Your task to perform on an android device: uninstall "NewsBreak: Local News & Alerts" Image 0: 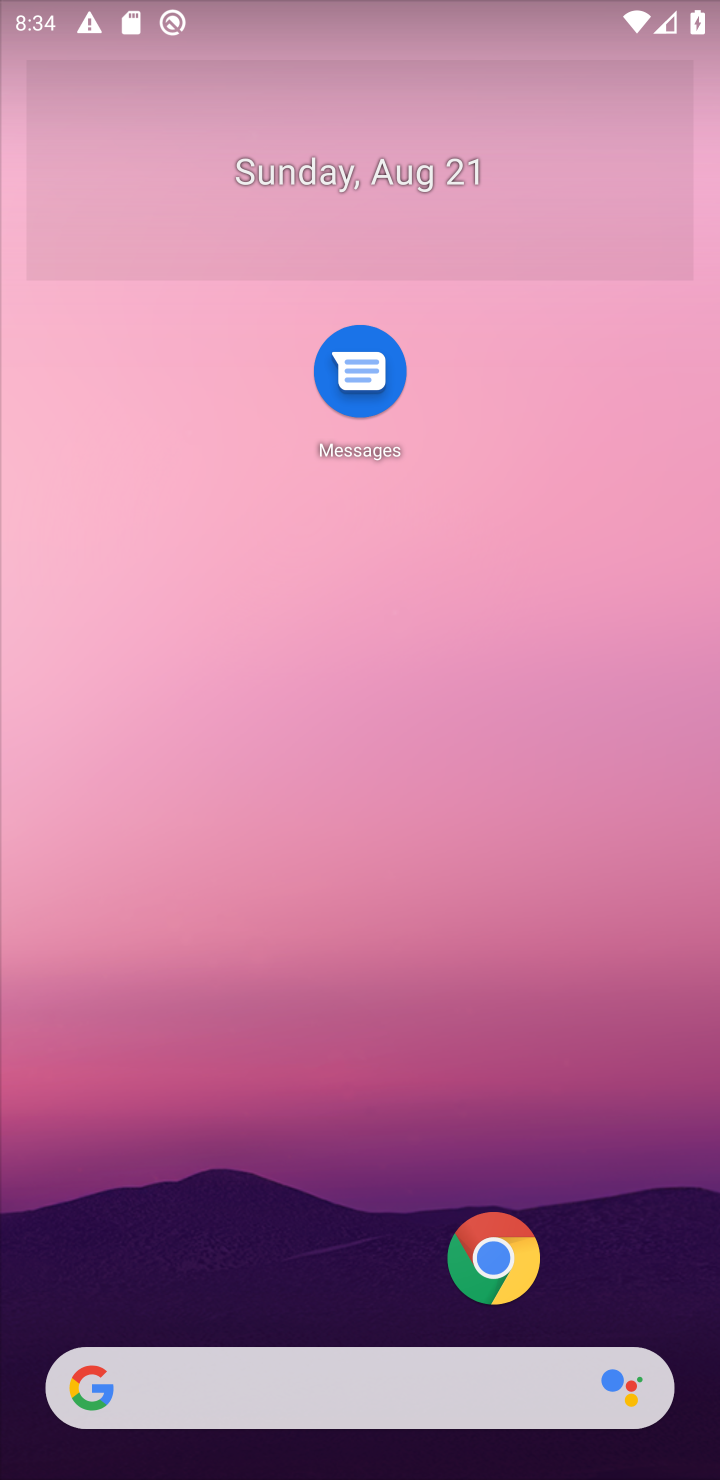
Step 0: drag from (478, 1468) to (578, 259)
Your task to perform on an android device: uninstall "NewsBreak: Local News & Alerts" Image 1: 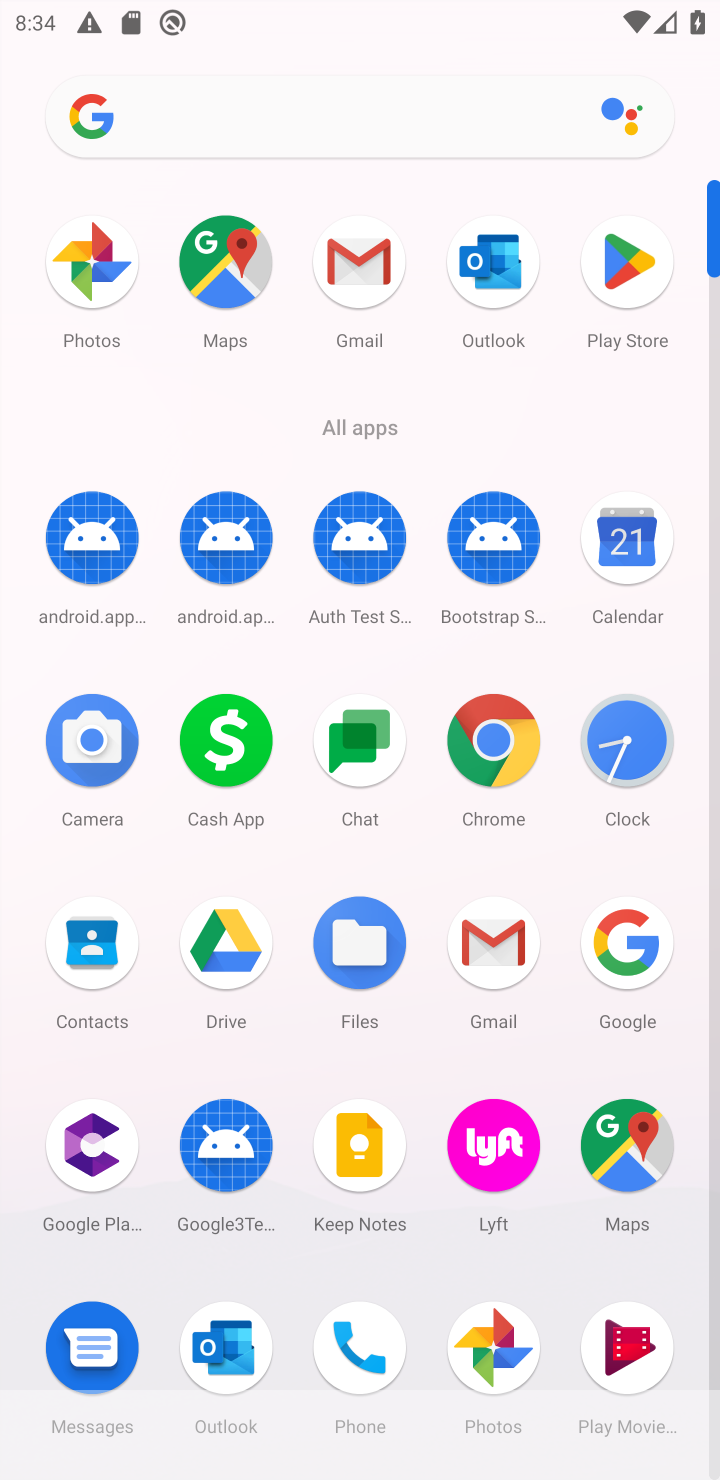
Step 1: click (650, 261)
Your task to perform on an android device: uninstall "NewsBreak: Local News & Alerts" Image 2: 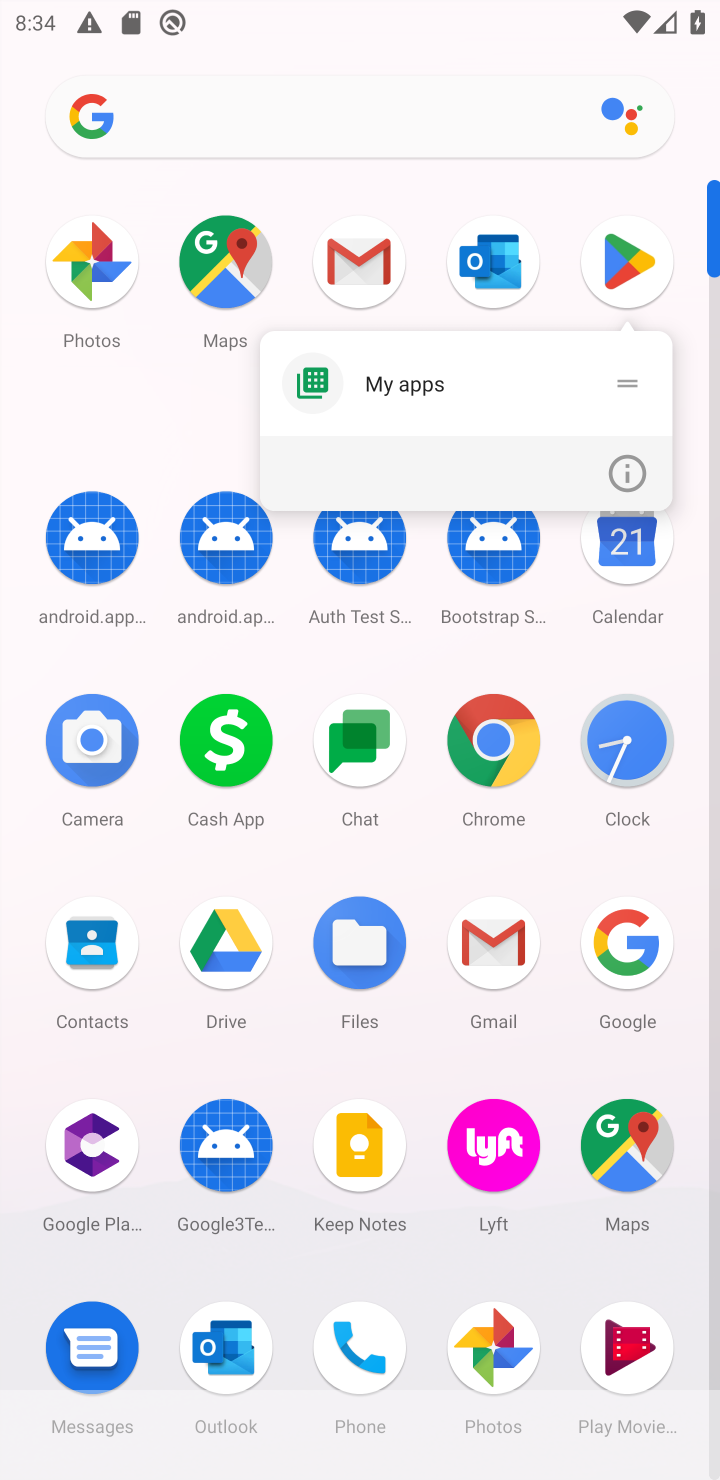
Step 2: click (650, 261)
Your task to perform on an android device: uninstall "NewsBreak: Local News & Alerts" Image 3: 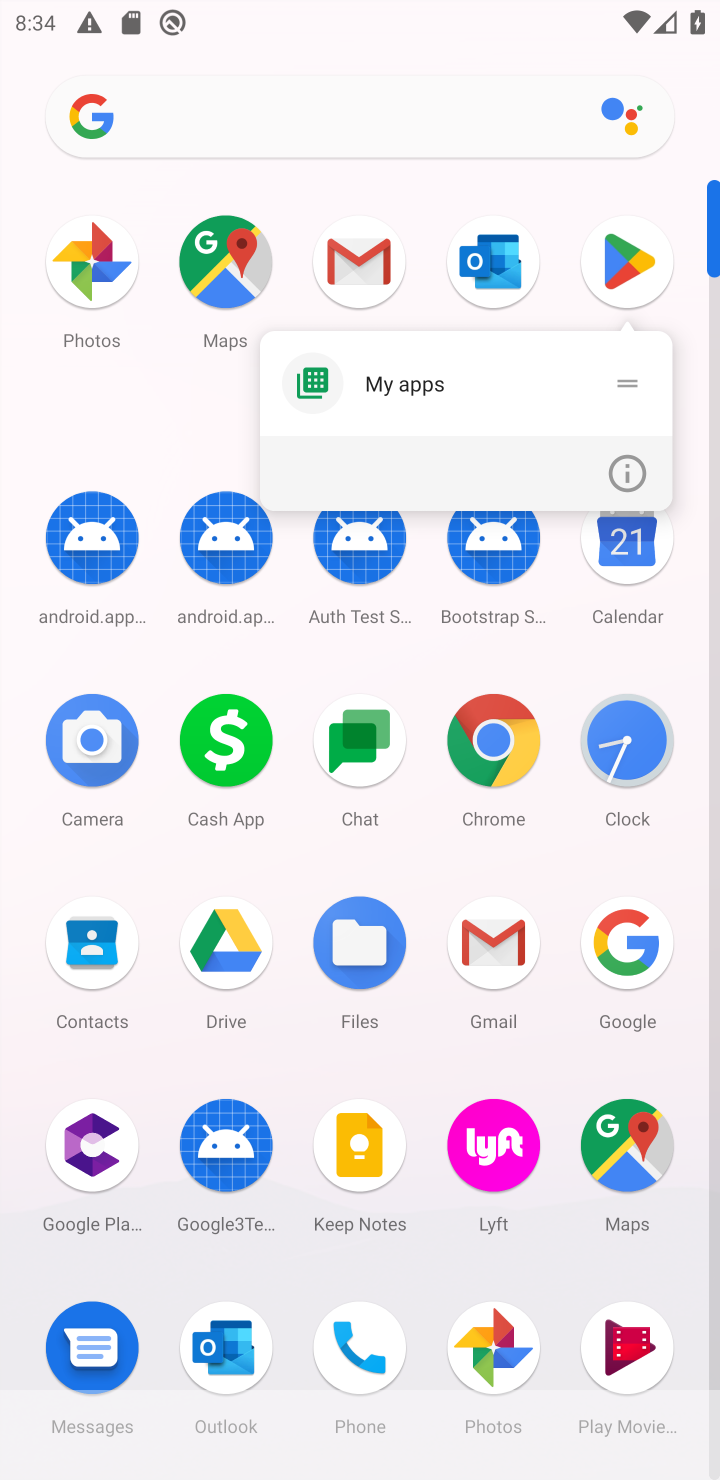
Step 3: click (635, 251)
Your task to perform on an android device: uninstall "NewsBreak: Local News & Alerts" Image 4: 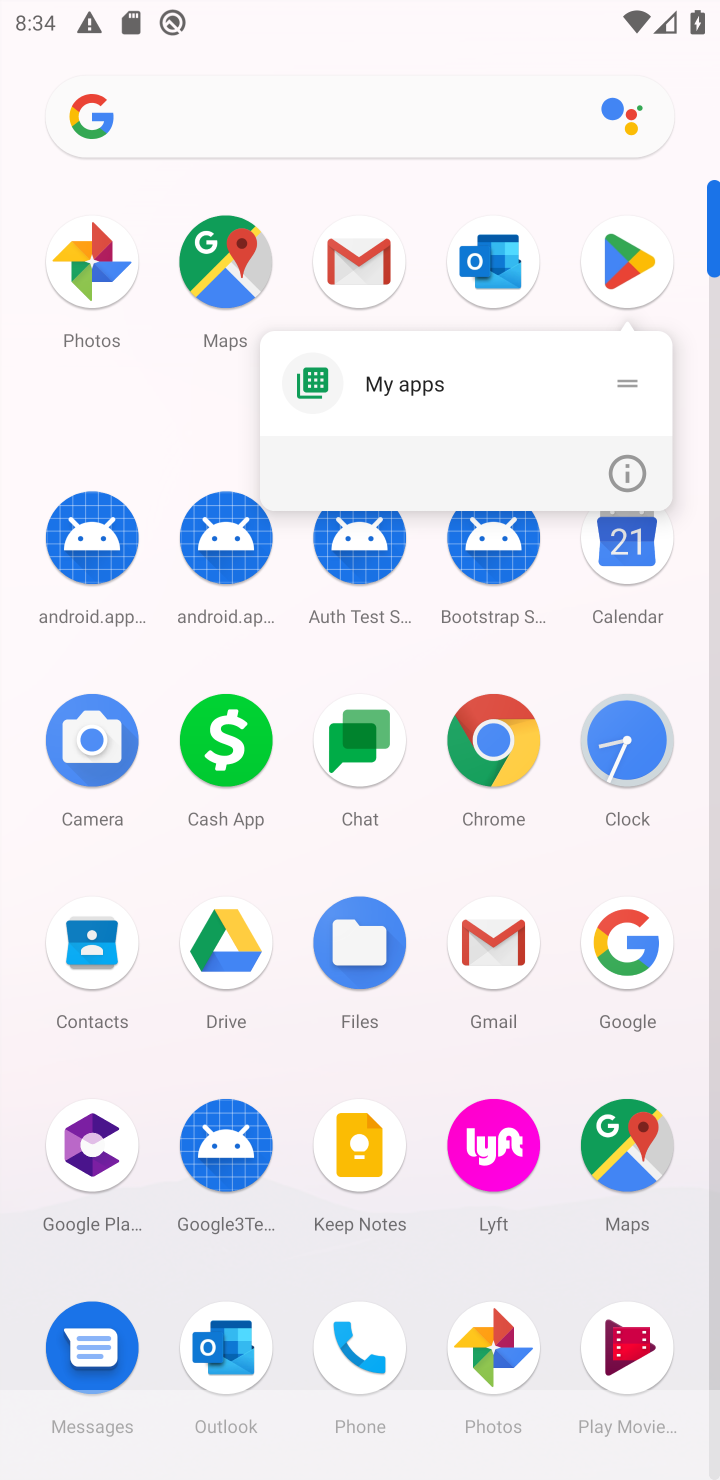
Step 4: click (633, 258)
Your task to perform on an android device: uninstall "NewsBreak: Local News & Alerts" Image 5: 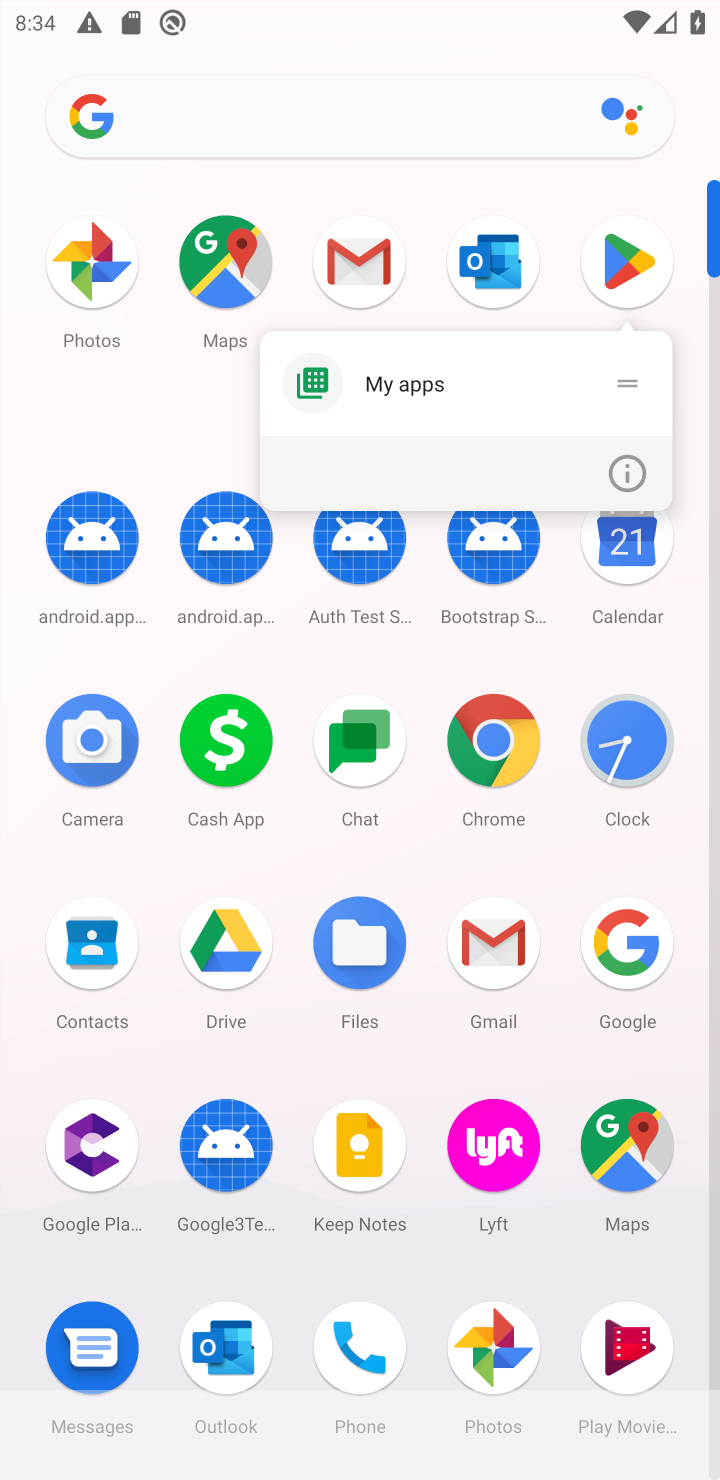
Step 5: click (633, 259)
Your task to perform on an android device: uninstall "NewsBreak: Local News & Alerts" Image 6: 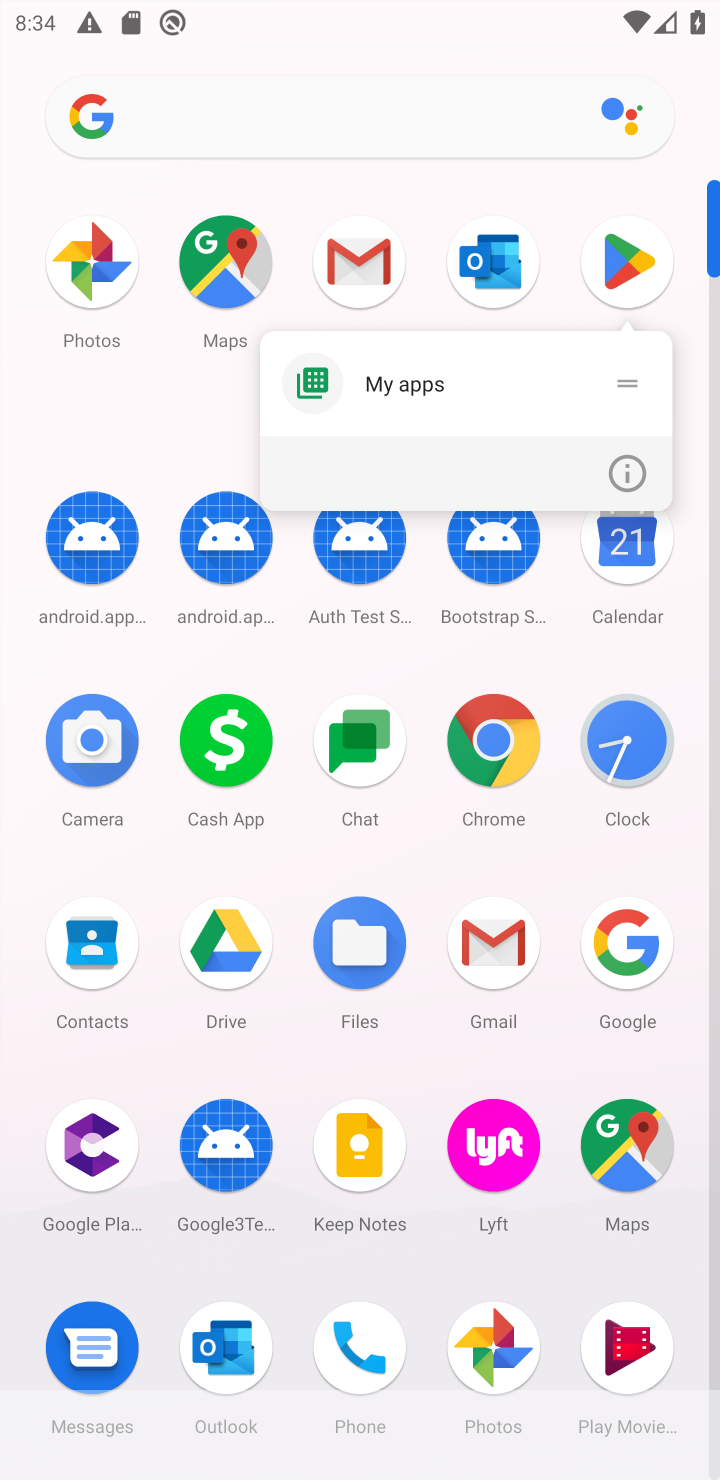
Step 6: click (626, 270)
Your task to perform on an android device: uninstall "NewsBreak: Local News & Alerts" Image 7: 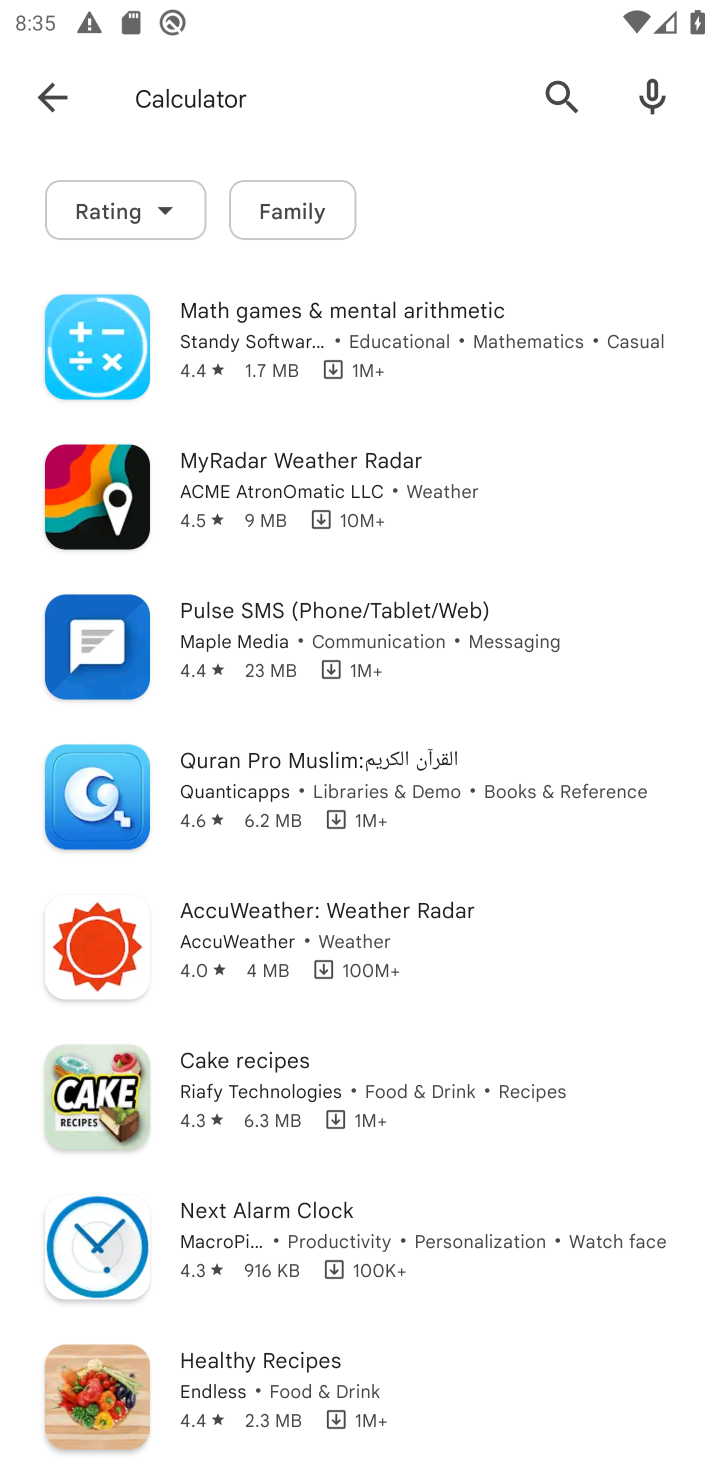
Step 7: press back button
Your task to perform on an android device: uninstall "NewsBreak: Local News & Alerts" Image 8: 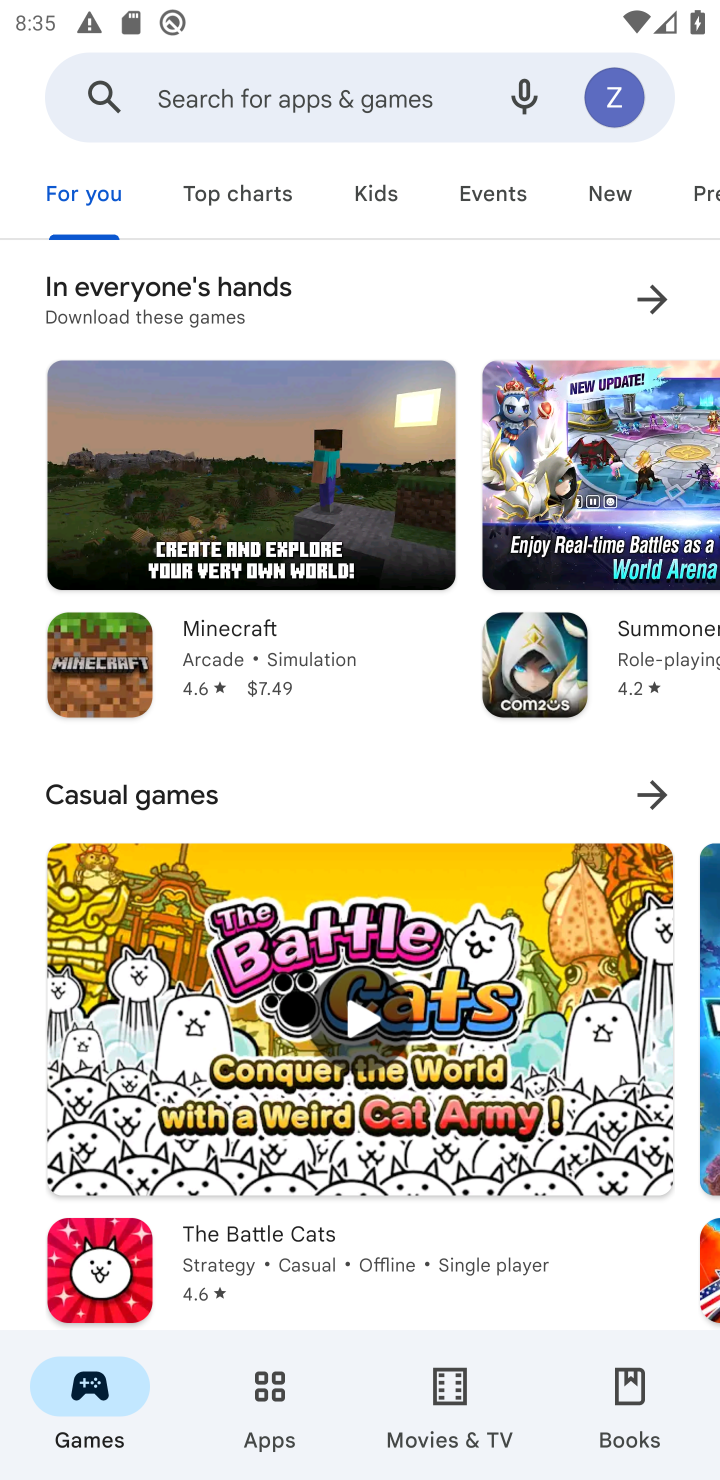
Step 8: click (322, 114)
Your task to perform on an android device: uninstall "NewsBreak: Local News & Alerts" Image 9: 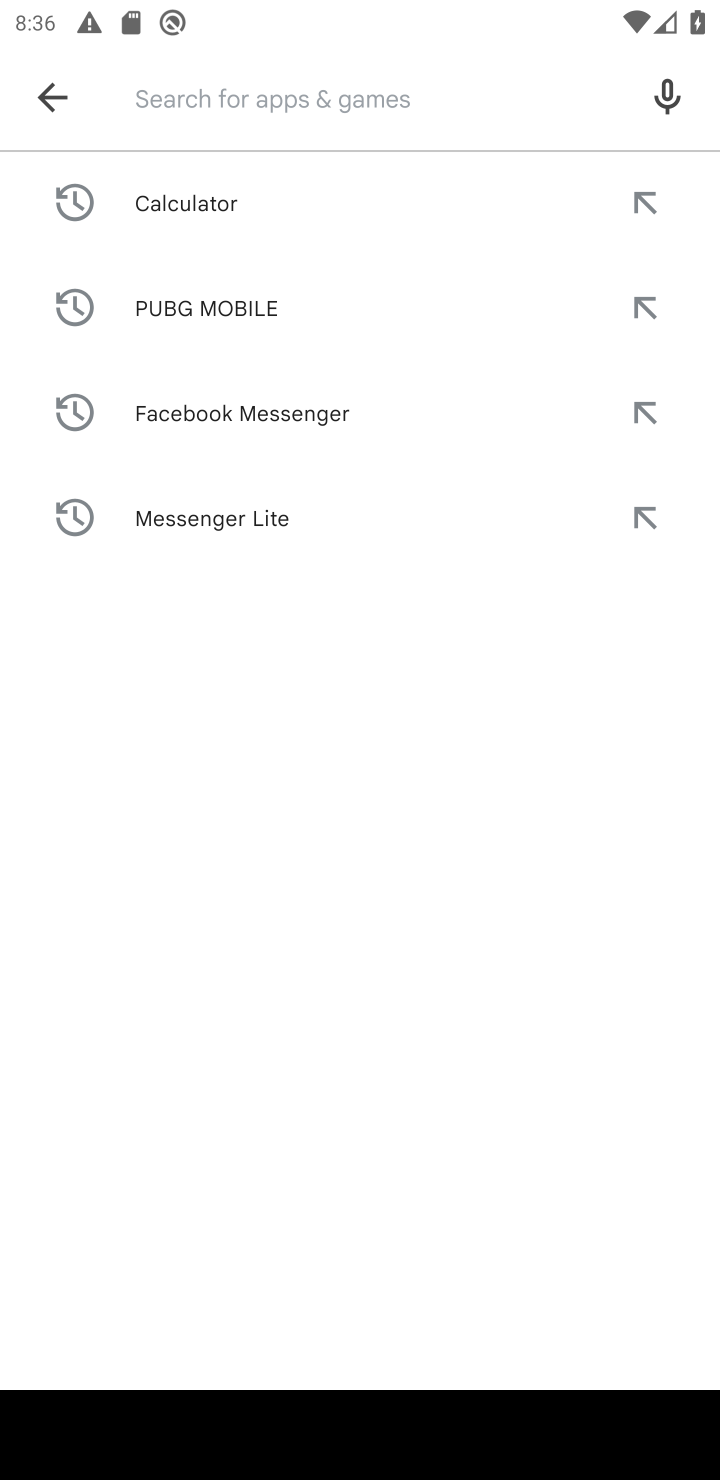
Step 9: type "NewsBreak: Local News & Alerts"
Your task to perform on an android device: uninstall "NewsBreak: Local News & Alerts" Image 10: 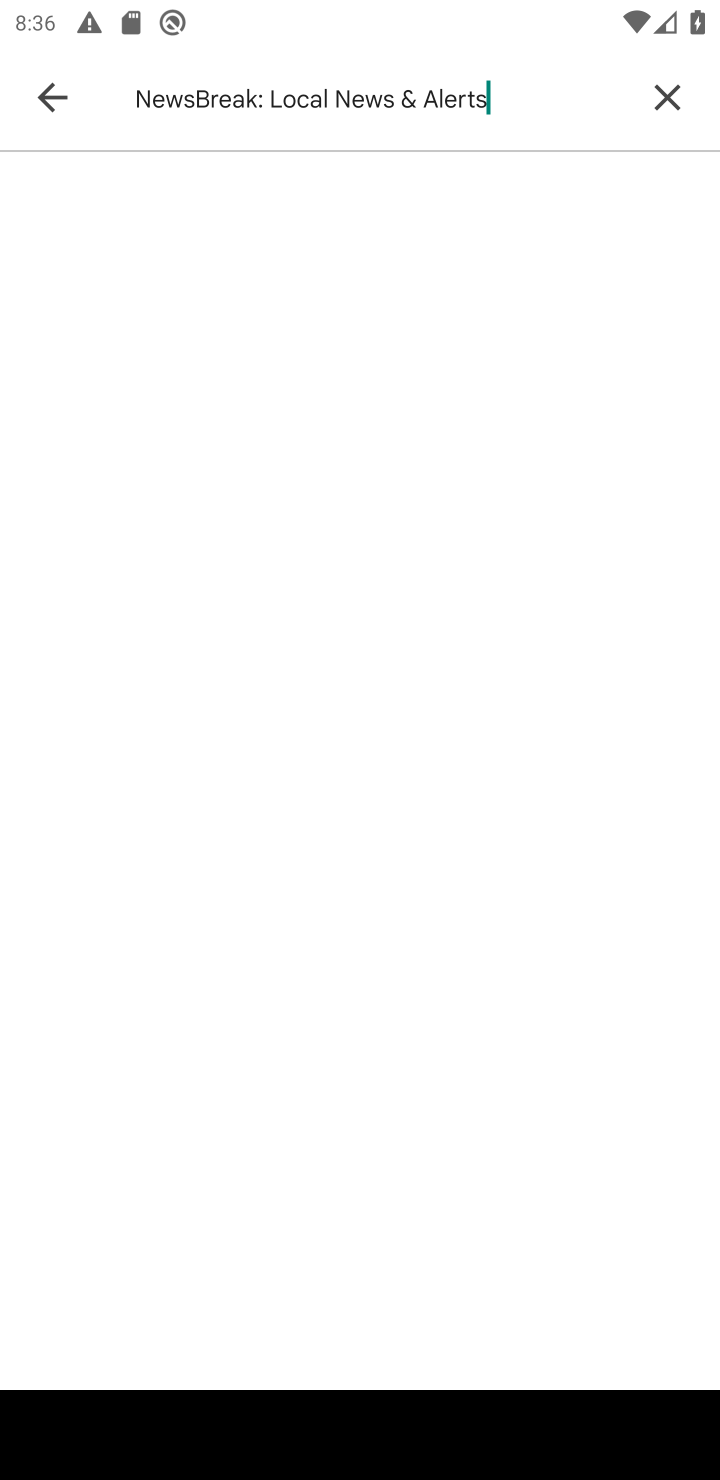
Step 10: press enter
Your task to perform on an android device: uninstall "NewsBreak: Local News & Alerts" Image 11: 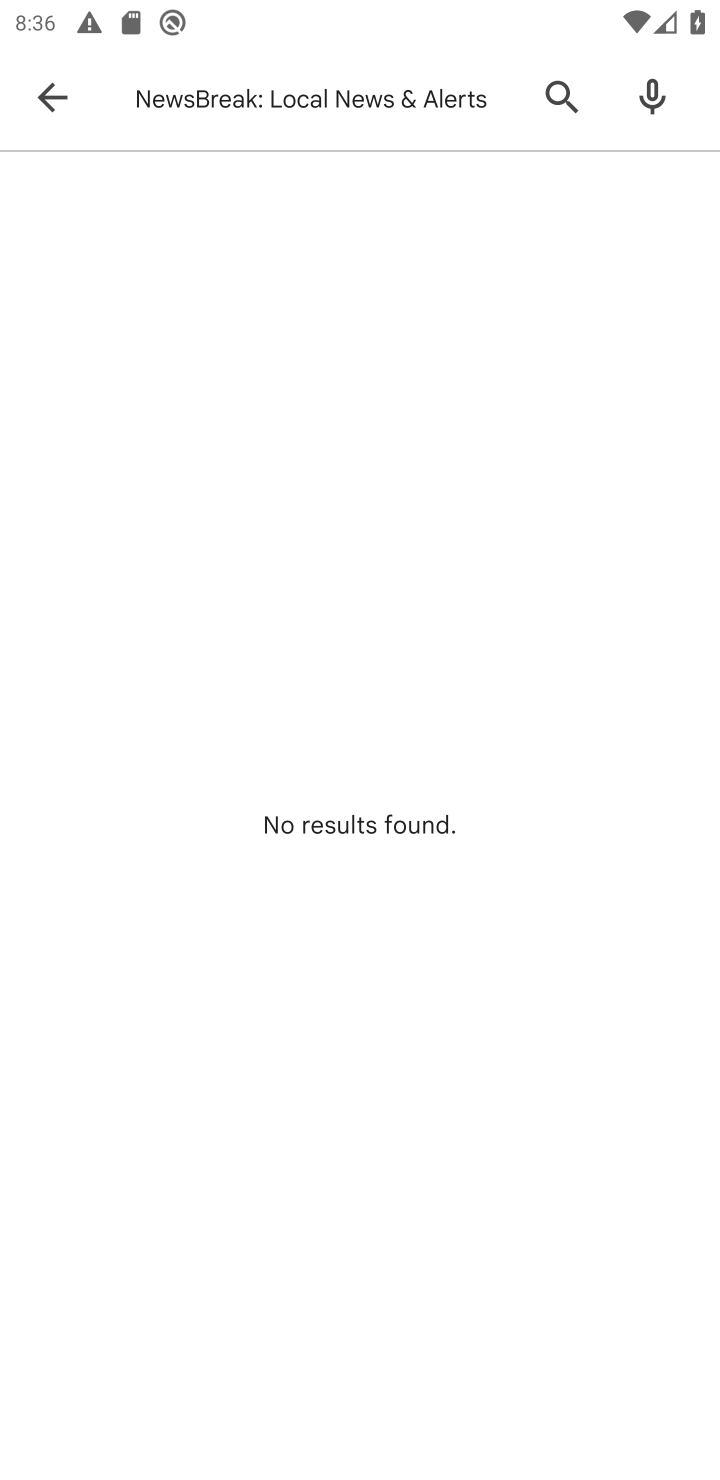
Step 11: task complete